Your task to perform on an android device: clear all cookies in the chrome app Image 0: 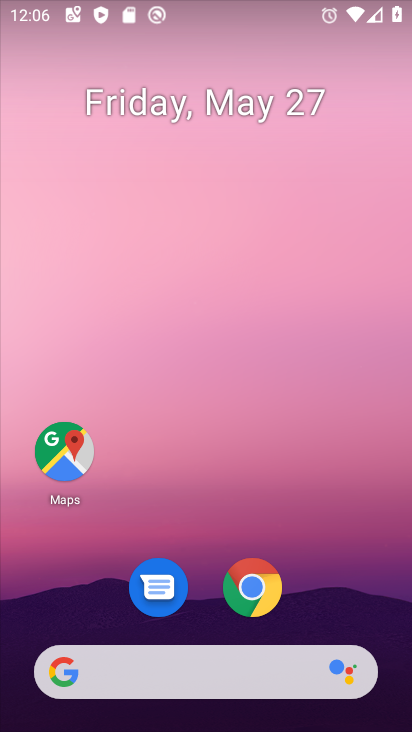
Step 0: drag from (219, 673) to (336, 96)
Your task to perform on an android device: clear all cookies in the chrome app Image 1: 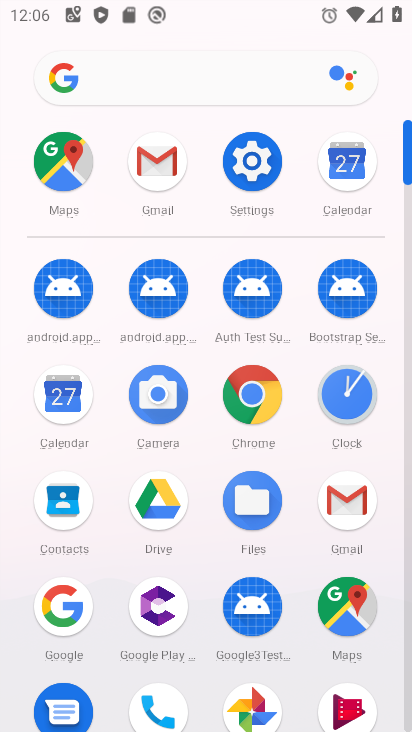
Step 1: click (254, 413)
Your task to perform on an android device: clear all cookies in the chrome app Image 2: 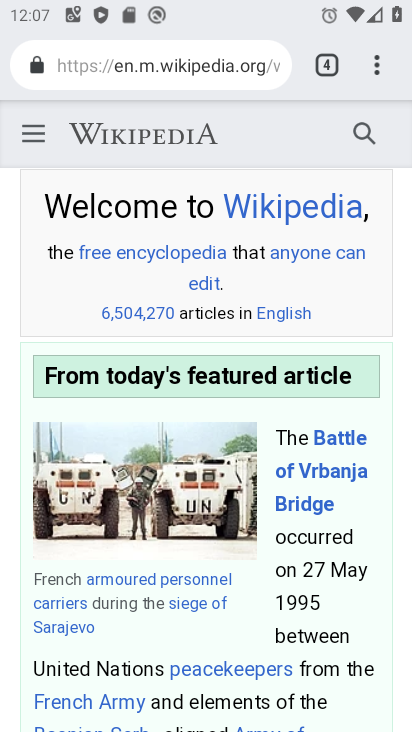
Step 2: click (362, 76)
Your task to perform on an android device: clear all cookies in the chrome app Image 3: 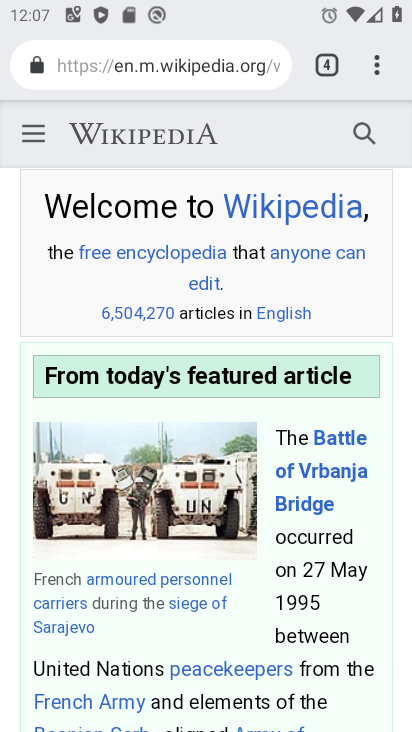
Step 3: click (376, 73)
Your task to perform on an android device: clear all cookies in the chrome app Image 4: 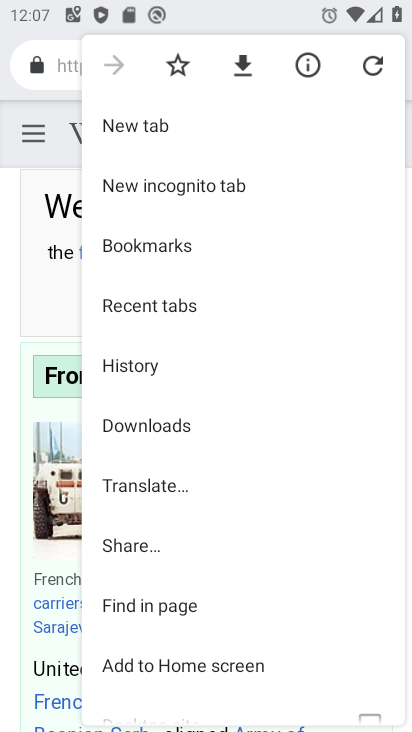
Step 4: drag from (159, 632) to (260, 307)
Your task to perform on an android device: clear all cookies in the chrome app Image 5: 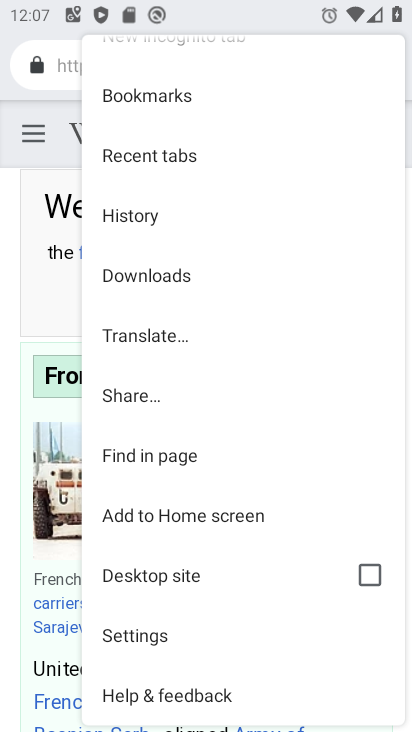
Step 5: click (173, 641)
Your task to perform on an android device: clear all cookies in the chrome app Image 6: 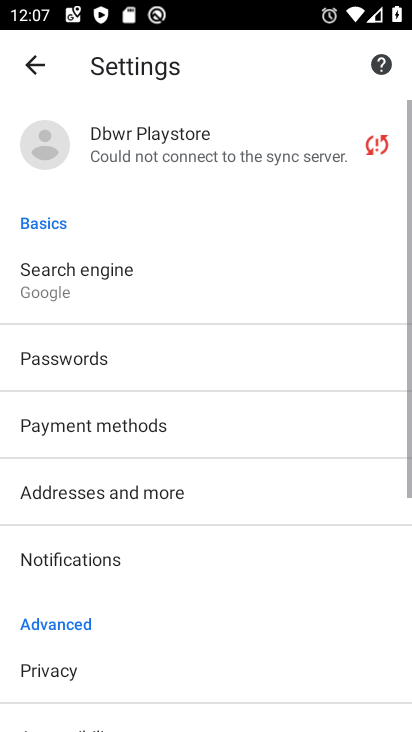
Step 6: click (74, 675)
Your task to perform on an android device: clear all cookies in the chrome app Image 7: 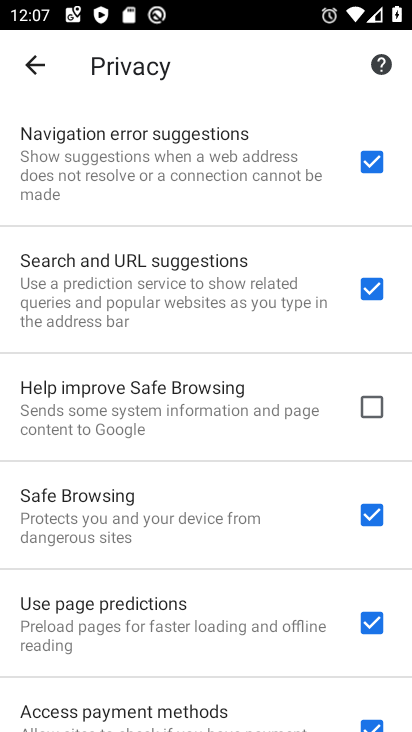
Step 7: drag from (162, 639) to (223, 130)
Your task to perform on an android device: clear all cookies in the chrome app Image 8: 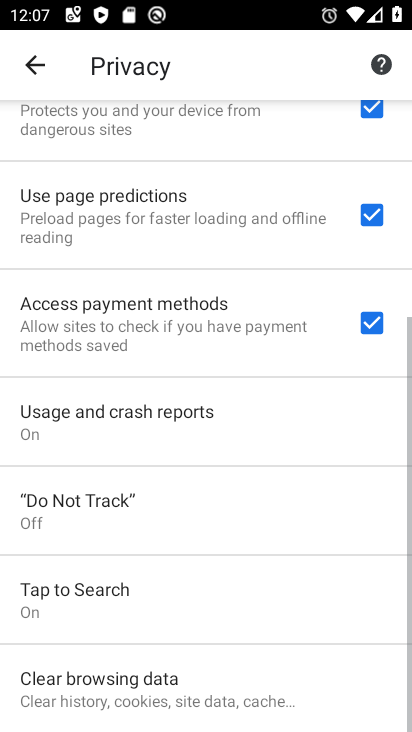
Step 8: click (184, 697)
Your task to perform on an android device: clear all cookies in the chrome app Image 9: 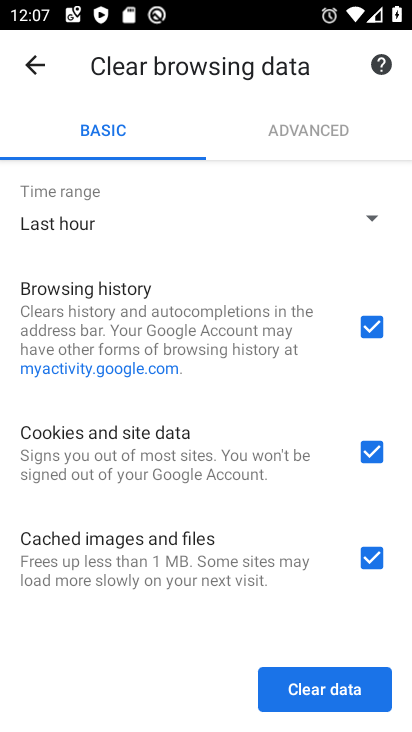
Step 9: click (282, 703)
Your task to perform on an android device: clear all cookies in the chrome app Image 10: 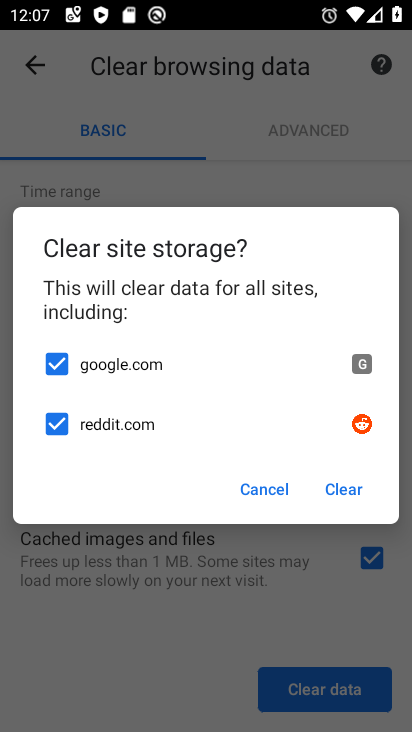
Step 10: task complete